Your task to perform on an android device: toggle notification dots Image 0: 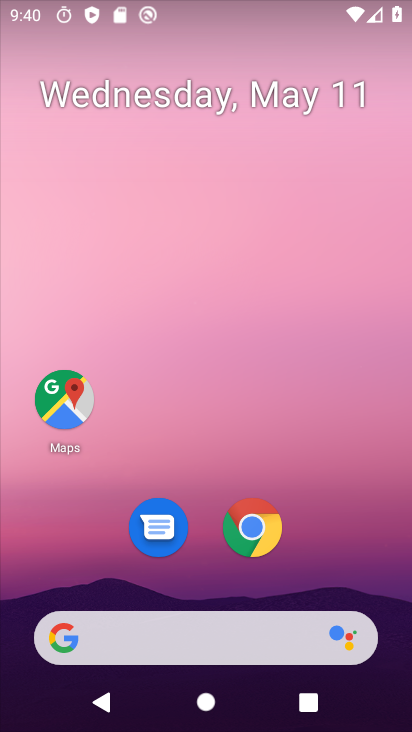
Step 0: drag from (271, 635) to (268, 264)
Your task to perform on an android device: toggle notification dots Image 1: 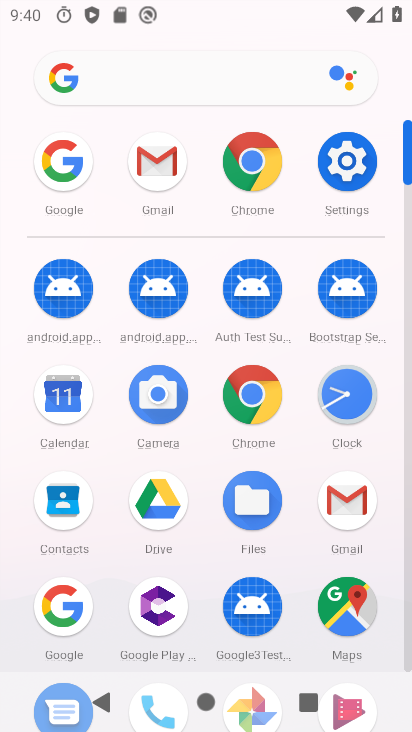
Step 1: click (367, 175)
Your task to perform on an android device: toggle notification dots Image 2: 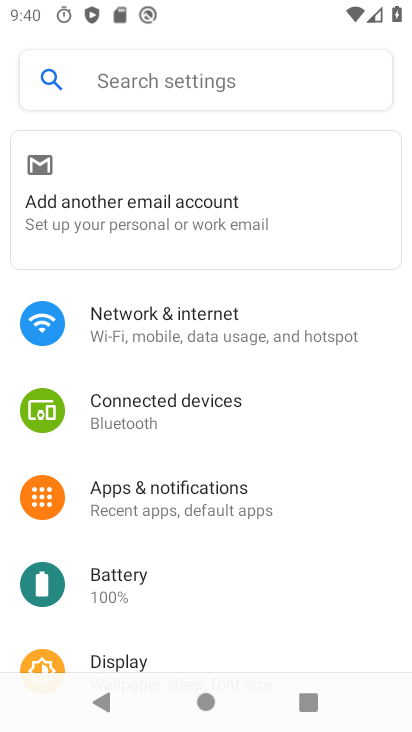
Step 2: click (202, 508)
Your task to perform on an android device: toggle notification dots Image 3: 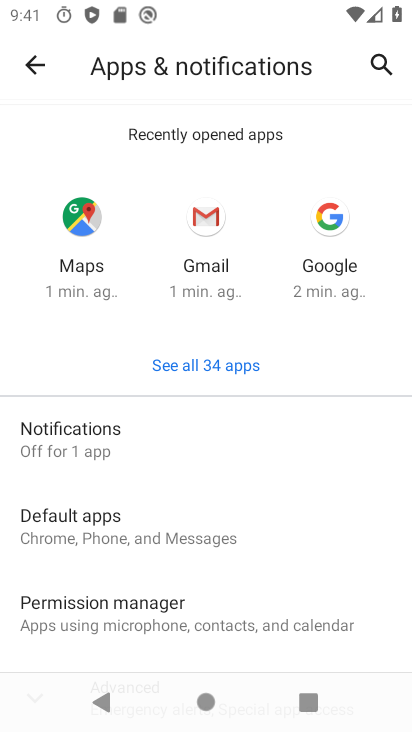
Step 3: click (164, 445)
Your task to perform on an android device: toggle notification dots Image 4: 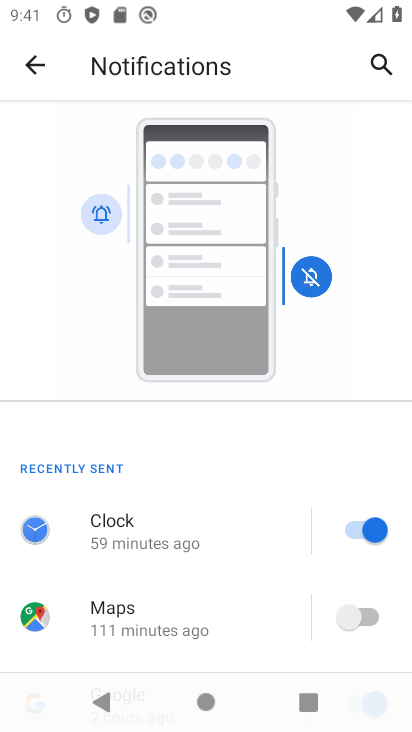
Step 4: drag from (253, 360) to (253, 310)
Your task to perform on an android device: toggle notification dots Image 5: 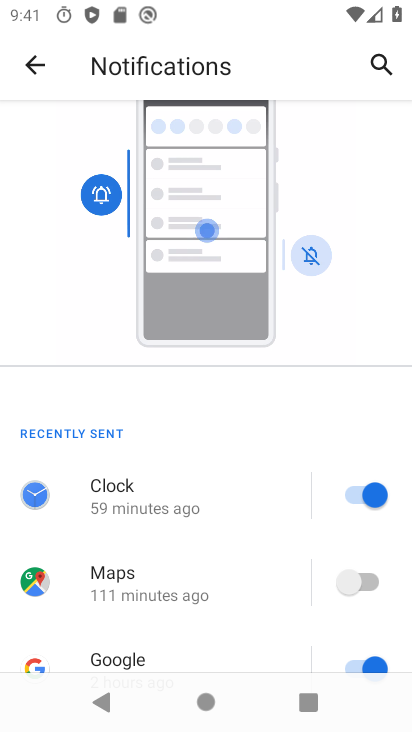
Step 5: drag from (202, 605) to (261, 204)
Your task to perform on an android device: toggle notification dots Image 6: 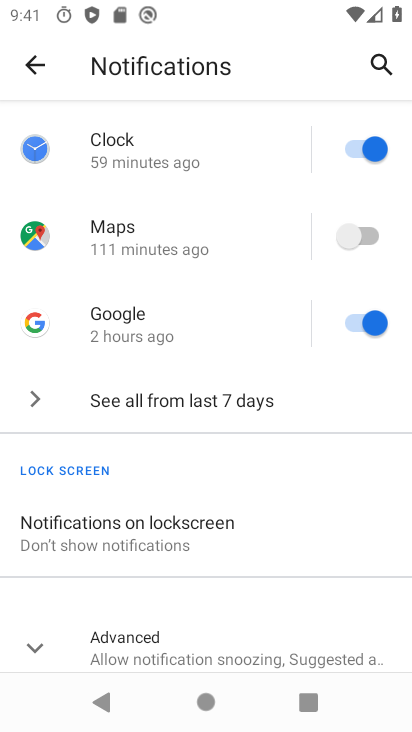
Step 6: click (189, 642)
Your task to perform on an android device: toggle notification dots Image 7: 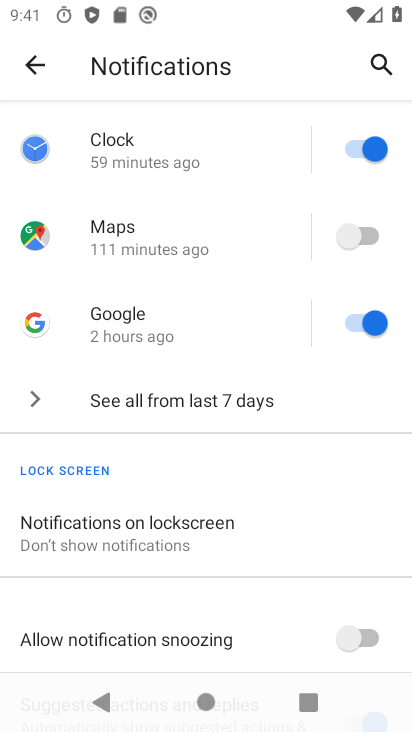
Step 7: drag from (239, 620) to (253, 223)
Your task to perform on an android device: toggle notification dots Image 8: 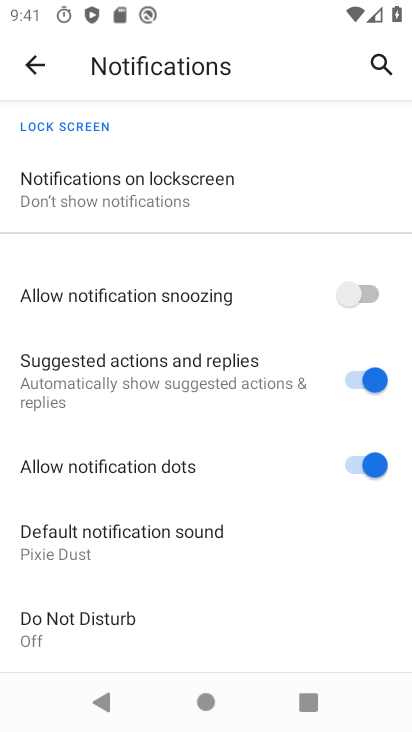
Step 8: click (358, 469)
Your task to perform on an android device: toggle notification dots Image 9: 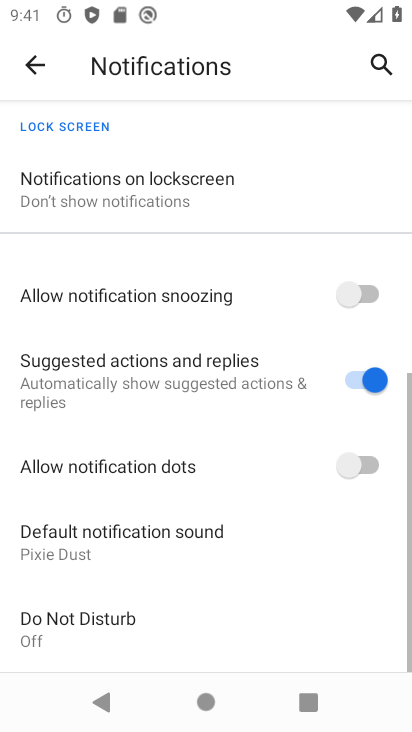
Step 9: task complete